Your task to perform on an android device: turn on the 12-hour format for clock Image 0: 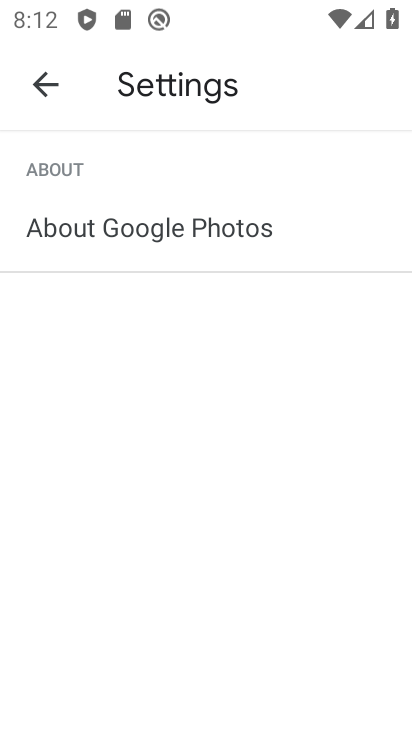
Step 0: type ""
Your task to perform on an android device: turn on the 12-hour format for clock Image 1: 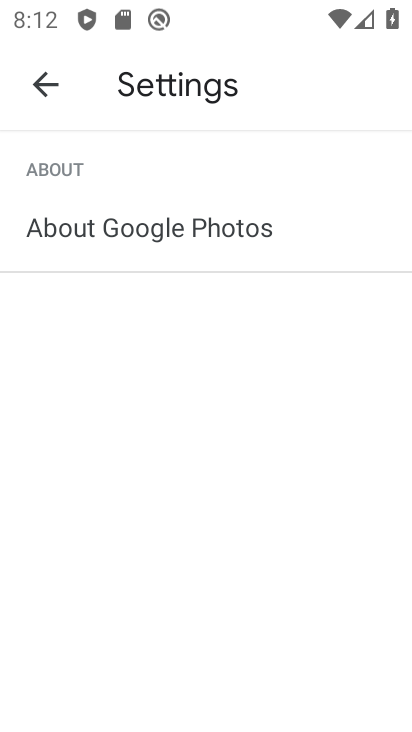
Step 1: press back button
Your task to perform on an android device: turn on the 12-hour format for clock Image 2: 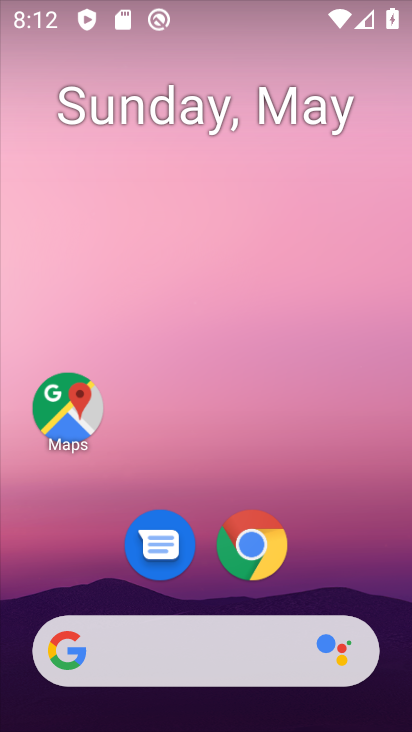
Step 2: drag from (366, 579) to (310, 196)
Your task to perform on an android device: turn on the 12-hour format for clock Image 3: 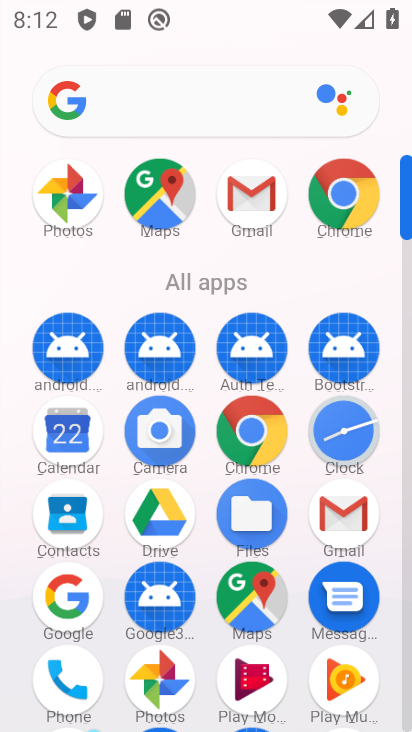
Step 3: click (355, 597)
Your task to perform on an android device: turn on the 12-hour format for clock Image 4: 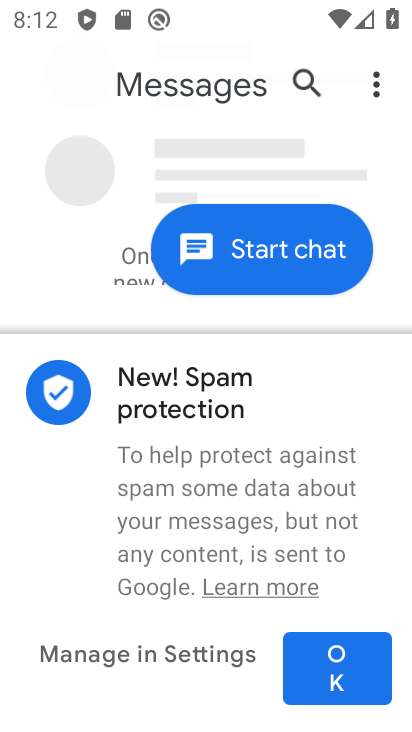
Step 4: press back button
Your task to perform on an android device: turn on the 12-hour format for clock Image 5: 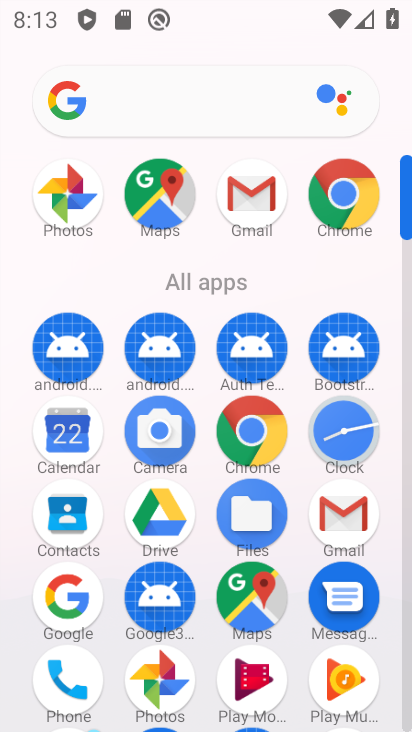
Step 5: click (405, 714)
Your task to perform on an android device: turn on the 12-hour format for clock Image 6: 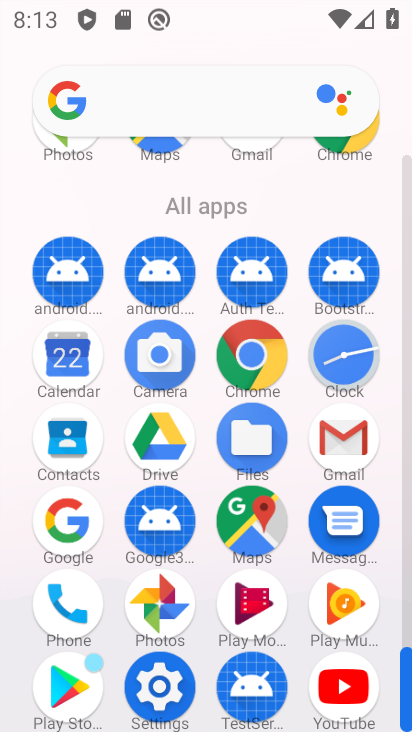
Step 6: click (405, 714)
Your task to perform on an android device: turn on the 12-hour format for clock Image 7: 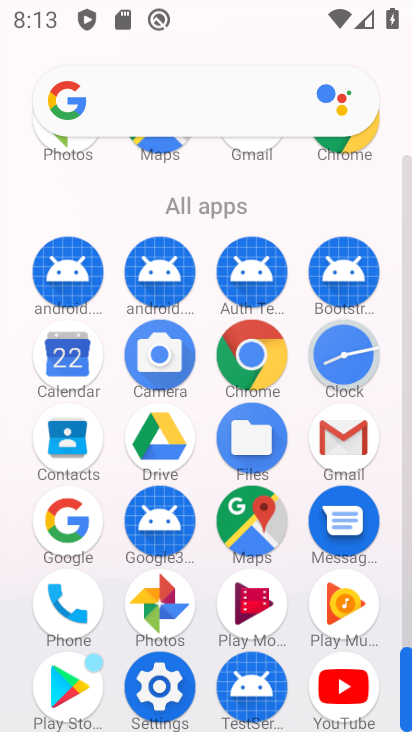
Step 7: click (349, 370)
Your task to perform on an android device: turn on the 12-hour format for clock Image 8: 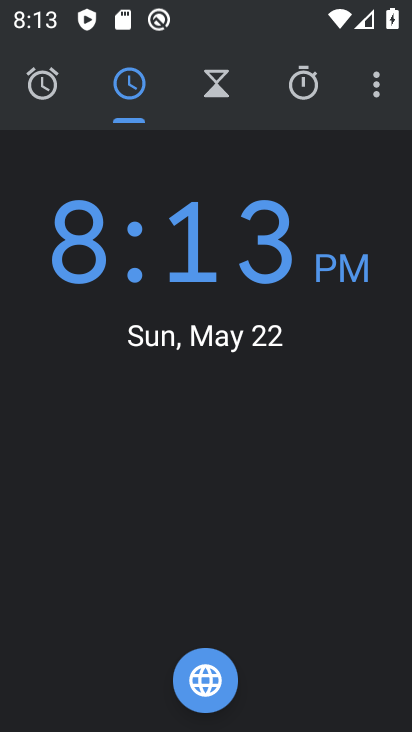
Step 8: click (377, 82)
Your task to perform on an android device: turn on the 12-hour format for clock Image 9: 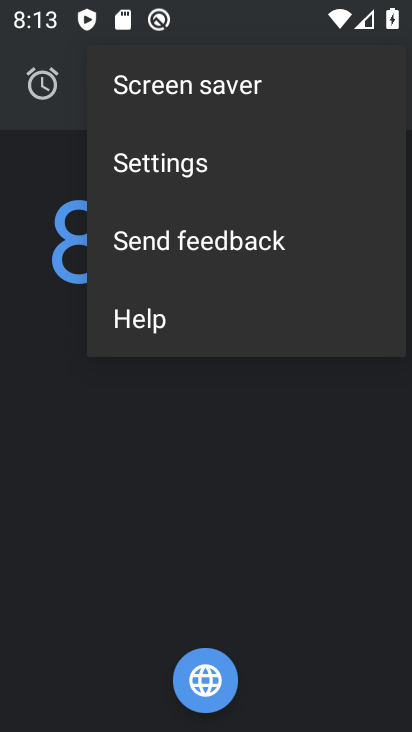
Step 9: click (317, 161)
Your task to perform on an android device: turn on the 12-hour format for clock Image 10: 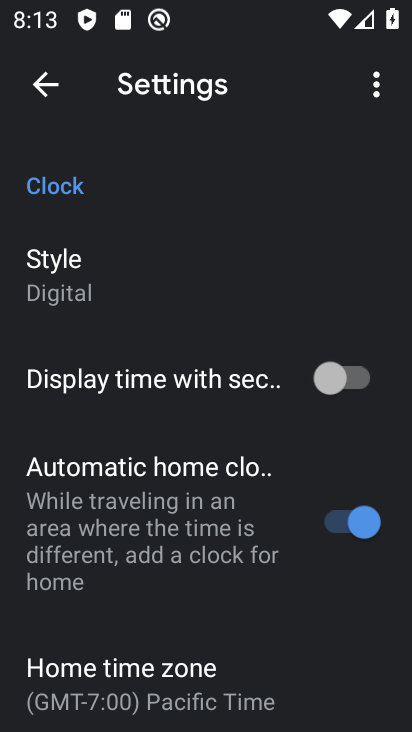
Step 10: drag from (264, 570) to (271, 213)
Your task to perform on an android device: turn on the 12-hour format for clock Image 11: 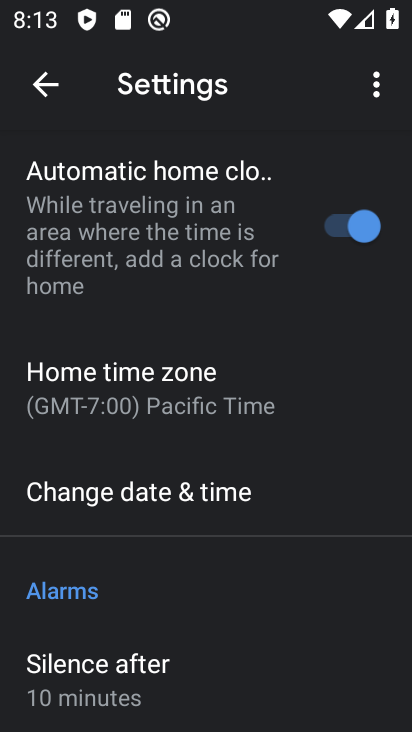
Step 11: click (206, 518)
Your task to perform on an android device: turn on the 12-hour format for clock Image 12: 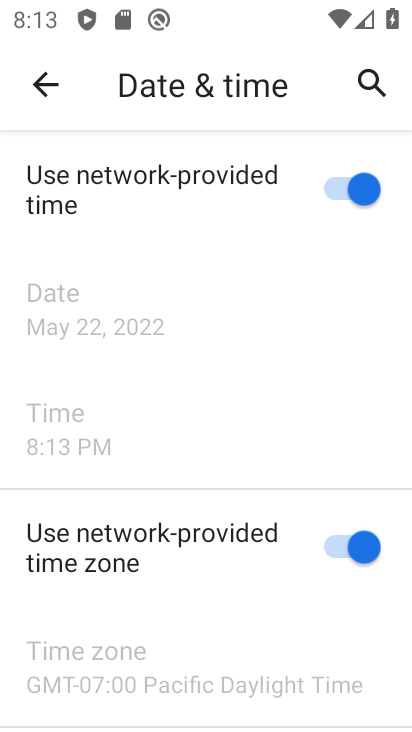
Step 12: task complete